Your task to perform on an android device: Go to Google maps Image 0: 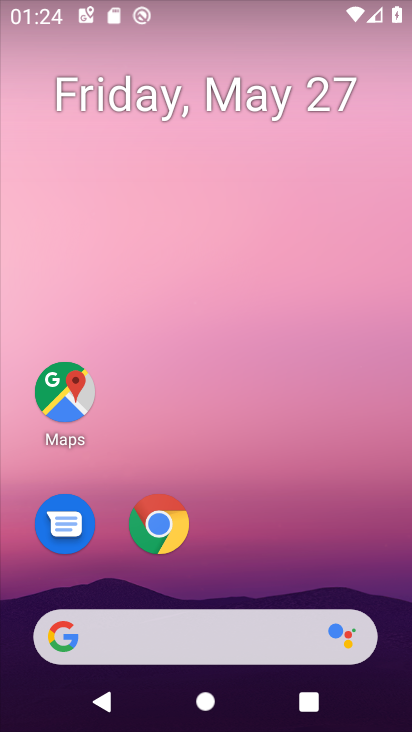
Step 0: click (70, 393)
Your task to perform on an android device: Go to Google maps Image 1: 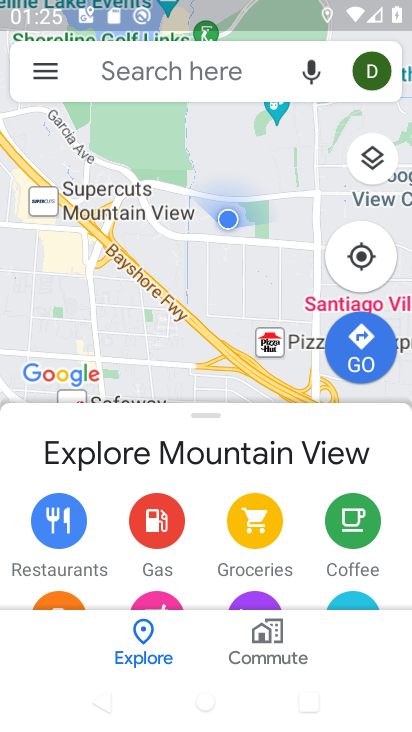
Step 1: task complete